Your task to perform on an android device: Go to sound settings Image 0: 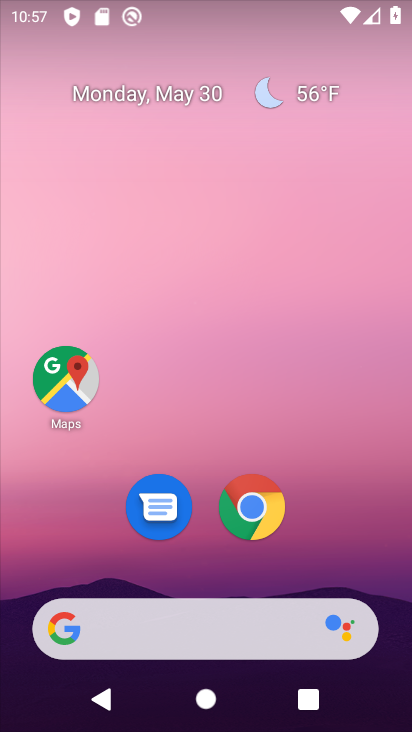
Step 0: drag from (158, 725) to (196, 31)
Your task to perform on an android device: Go to sound settings Image 1: 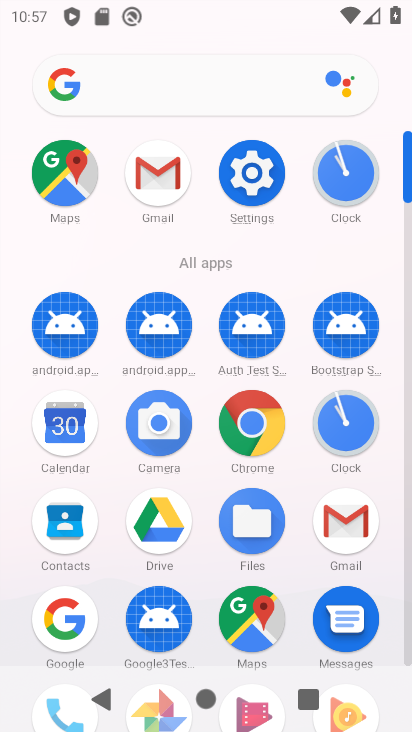
Step 1: click (236, 184)
Your task to perform on an android device: Go to sound settings Image 2: 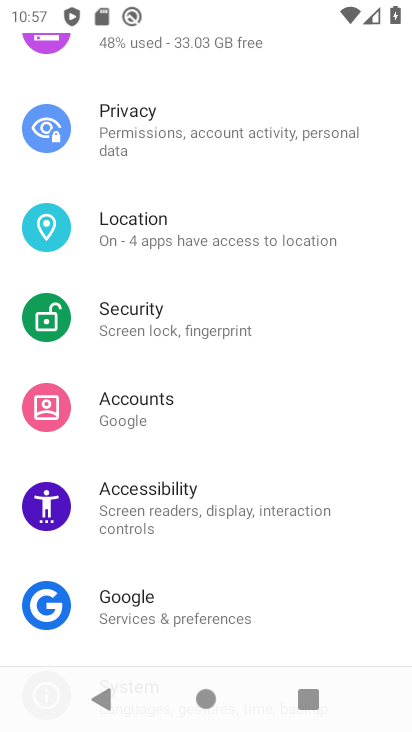
Step 2: drag from (278, 129) to (248, 676)
Your task to perform on an android device: Go to sound settings Image 3: 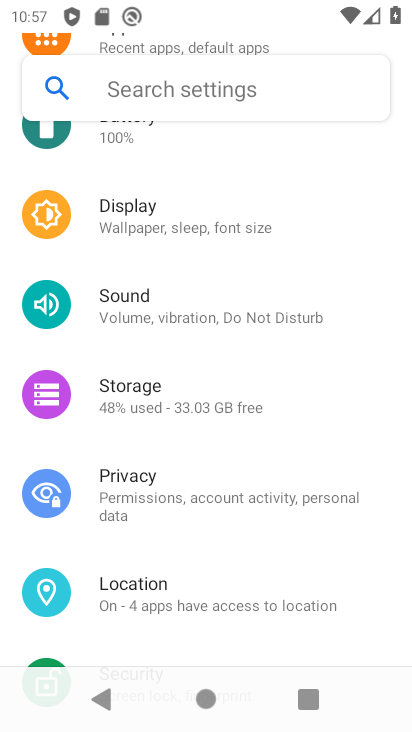
Step 3: click (187, 324)
Your task to perform on an android device: Go to sound settings Image 4: 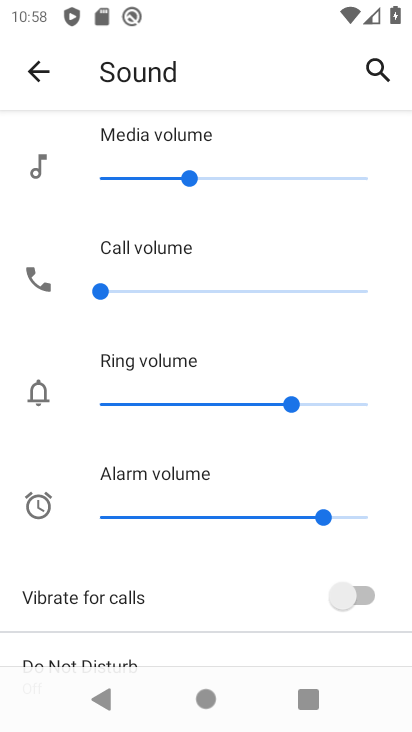
Step 4: task complete